Your task to perform on an android device: turn on priority inbox in the gmail app Image 0: 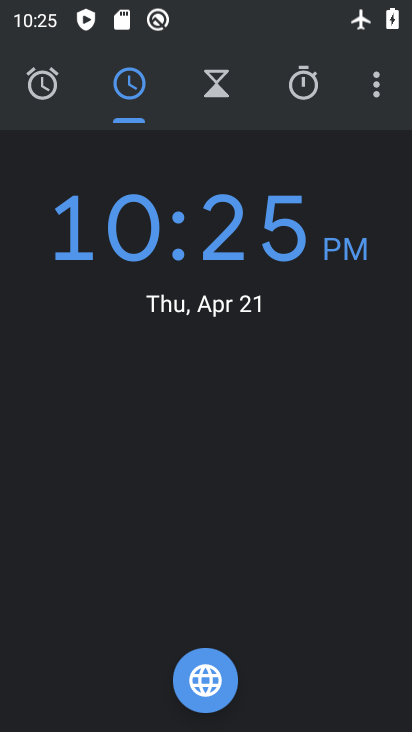
Step 0: press back button
Your task to perform on an android device: turn on priority inbox in the gmail app Image 1: 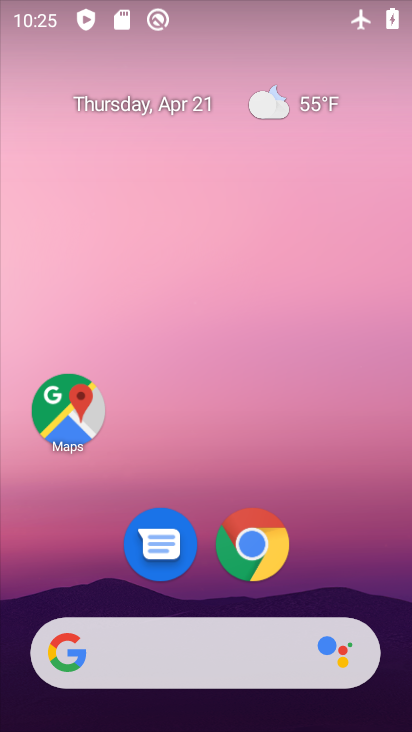
Step 1: drag from (337, 504) to (225, 54)
Your task to perform on an android device: turn on priority inbox in the gmail app Image 2: 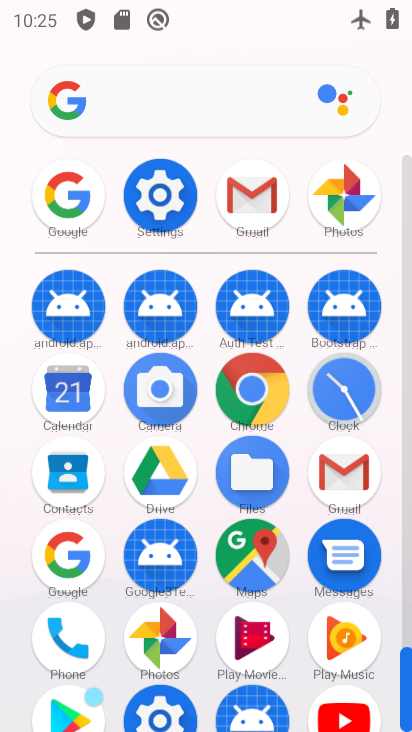
Step 2: click (346, 471)
Your task to perform on an android device: turn on priority inbox in the gmail app Image 3: 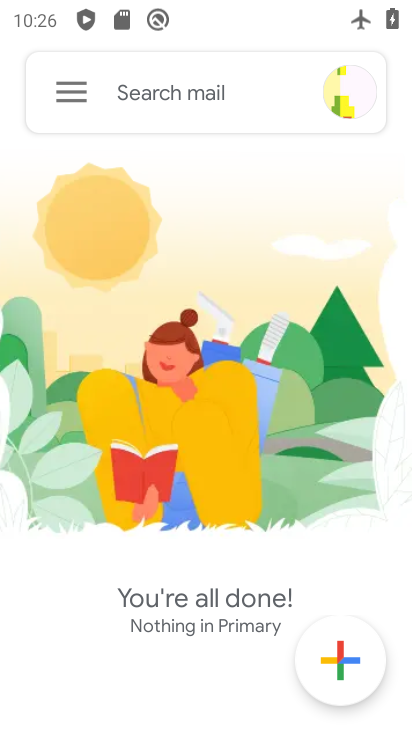
Step 3: click (62, 100)
Your task to perform on an android device: turn on priority inbox in the gmail app Image 4: 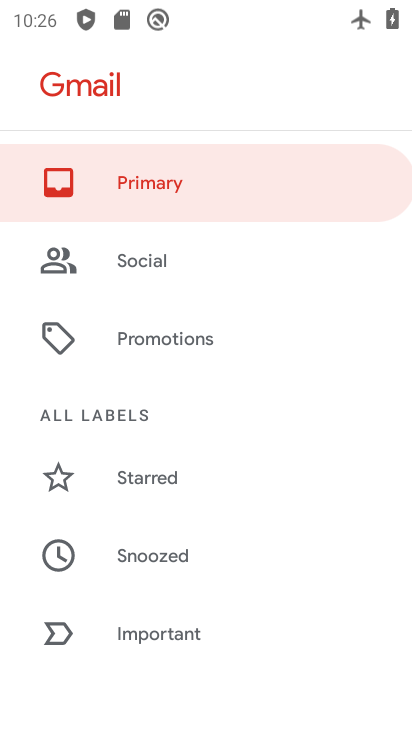
Step 4: drag from (250, 578) to (240, 115)
Your task to perform on an android device: turn on priority inbox in the gmail app Image 5: 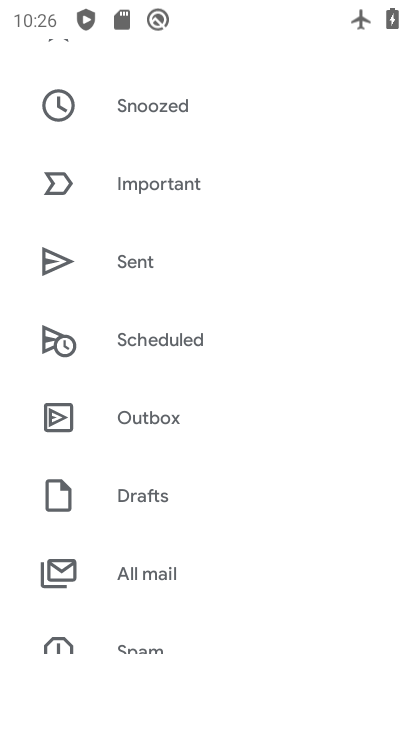
Step 5: drag from (262, 496) to (258, 177)
Your task to perform on an android device: turn on priority inbox in the gmail app Image 6: 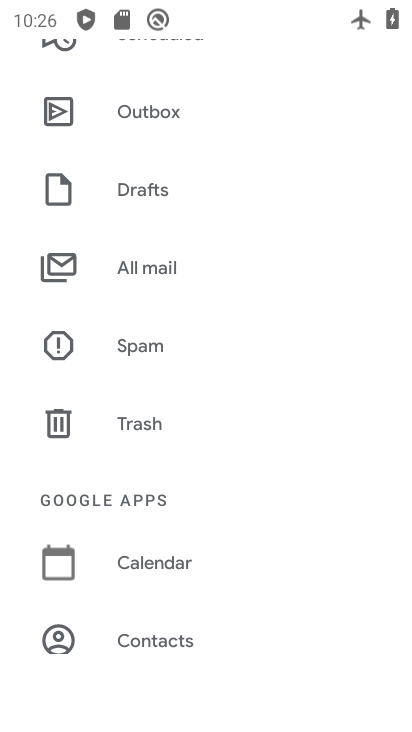
Step 6: drag from (231, 605) to (237, 129)
Your task to perform on an android device: turn on priority inbox in the gmail app Image 7: 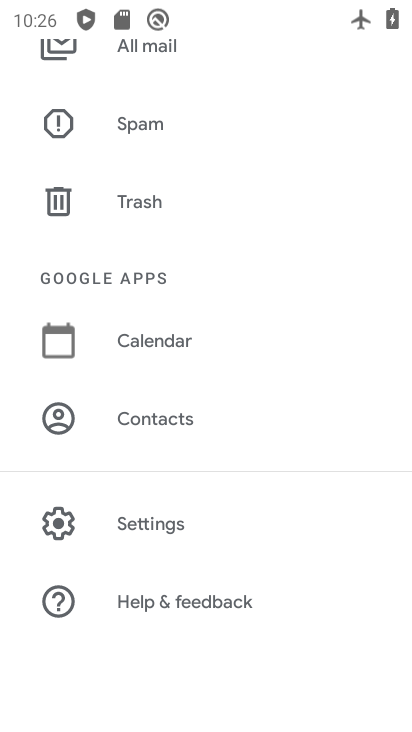
Step 7: click (194, 514)
Your task to perform on an android device: turn on priority inbox in the gmail app Image 8: 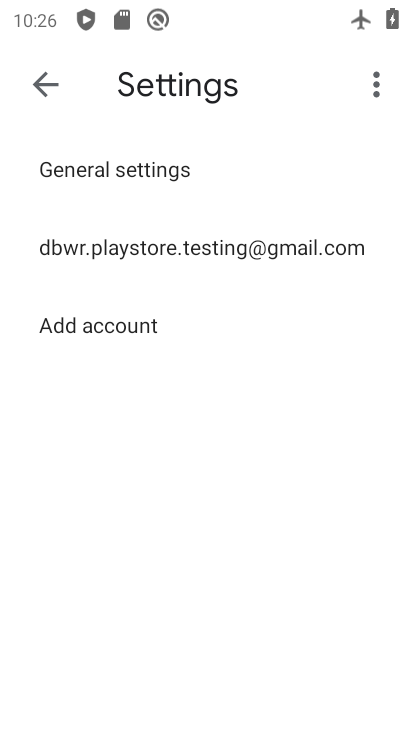
Step 8: click (196, 255)
Your task to perform on an android device: turn on priority inbox in the gmail app Image 9: 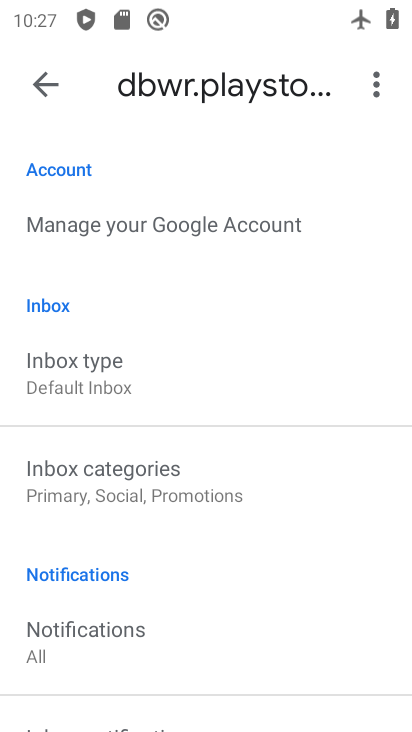
Step 9: click (134, 389)
Your task to perform on an android device: turn on priority inbox in the gmail app Image 10: 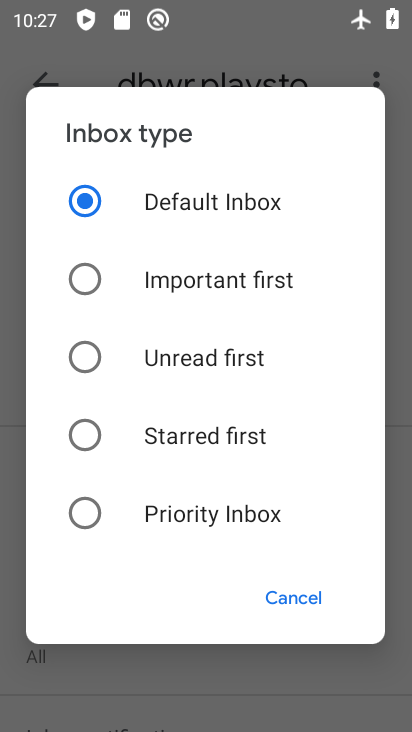
Step 10: click (171, 508)
Your task to perform on an android device: turn on priority inbox in the gmail app Image 11: 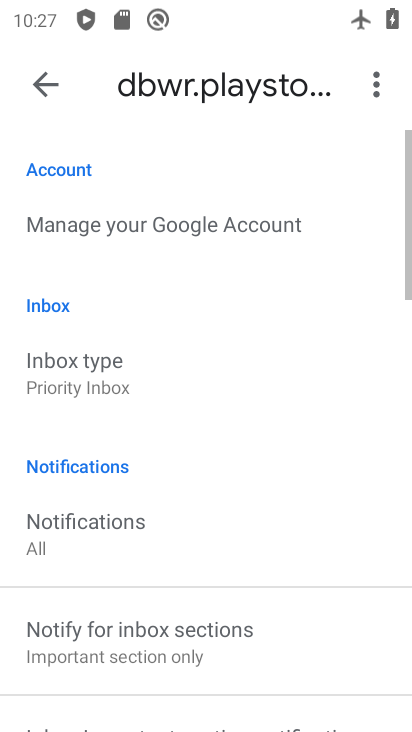
Step 11: task complete